Your task to perform on an android device: turn off notifications in google photos Image 0: 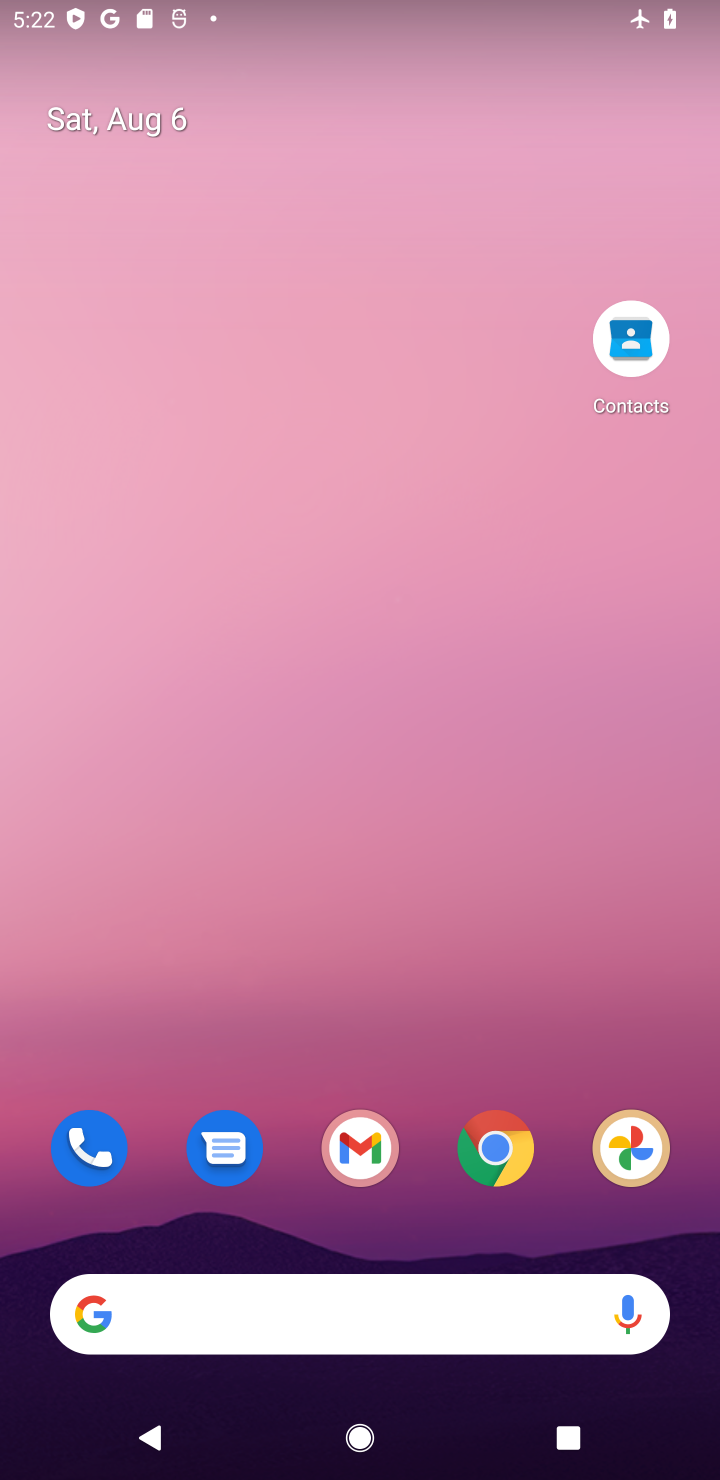
Step 0: drag from (382, 1266) to (503, 57)
Your task to perform on an android device: turn off notifications in google photos Image 1: 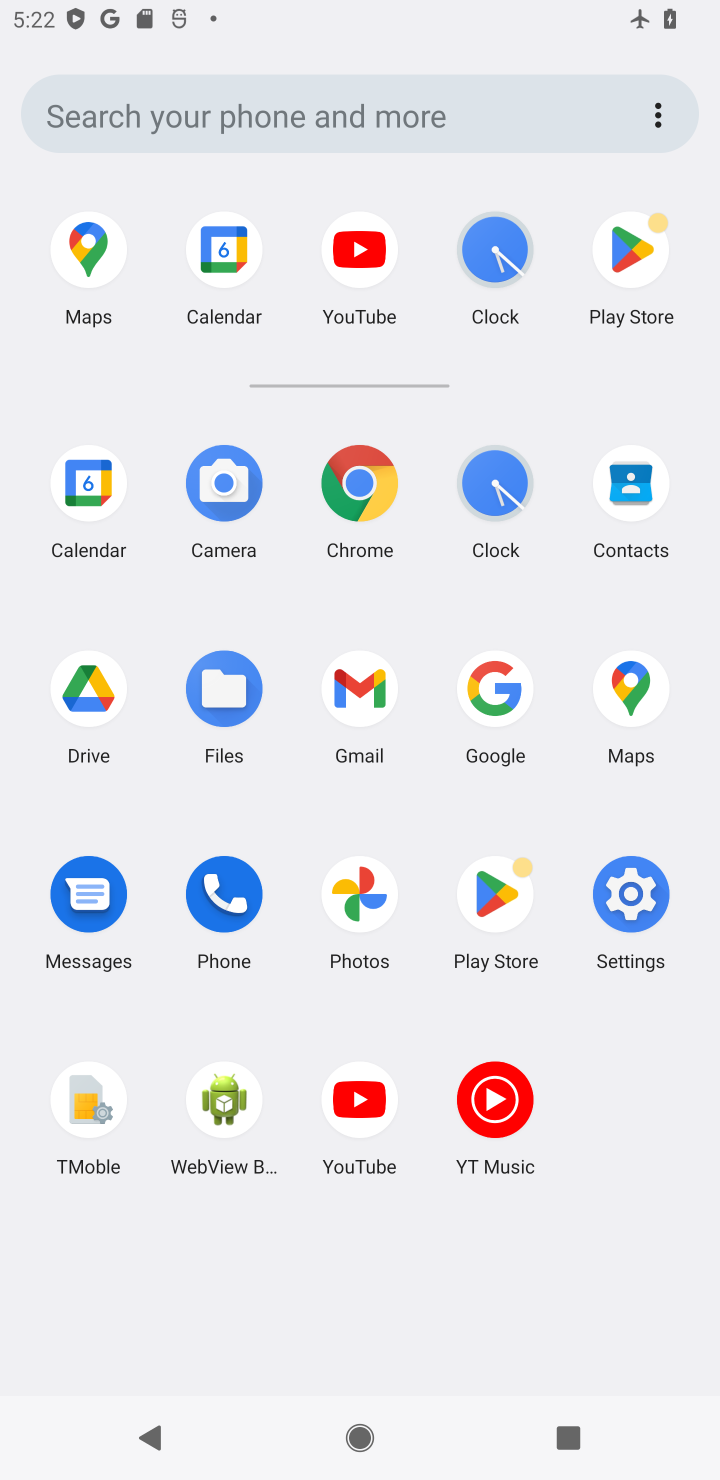
Step 1: click (360, 897)
Your task to perform on an android device: turn off notifications in google photos Image 2: 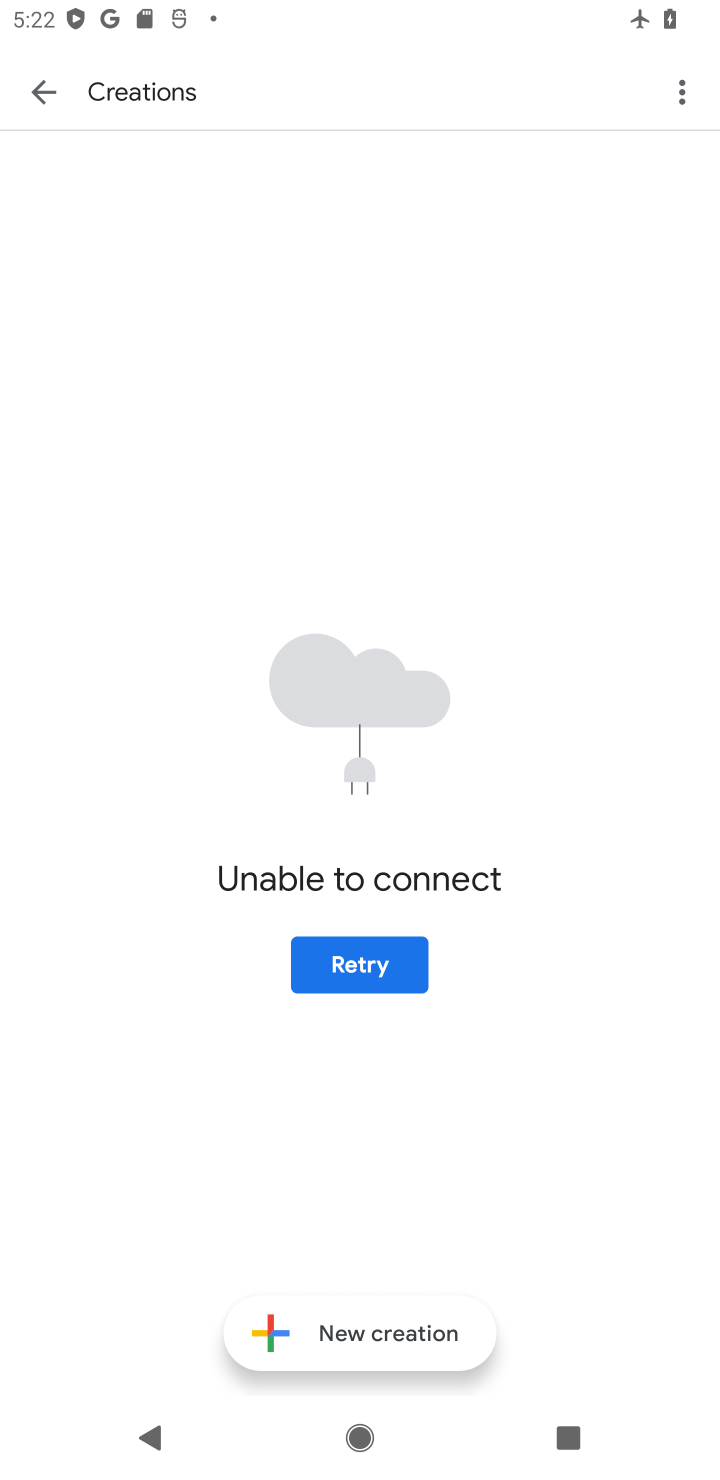
Step 2: click (42, 85)
Your task to perform on an android device: turn off notifications in google photos Image 3: 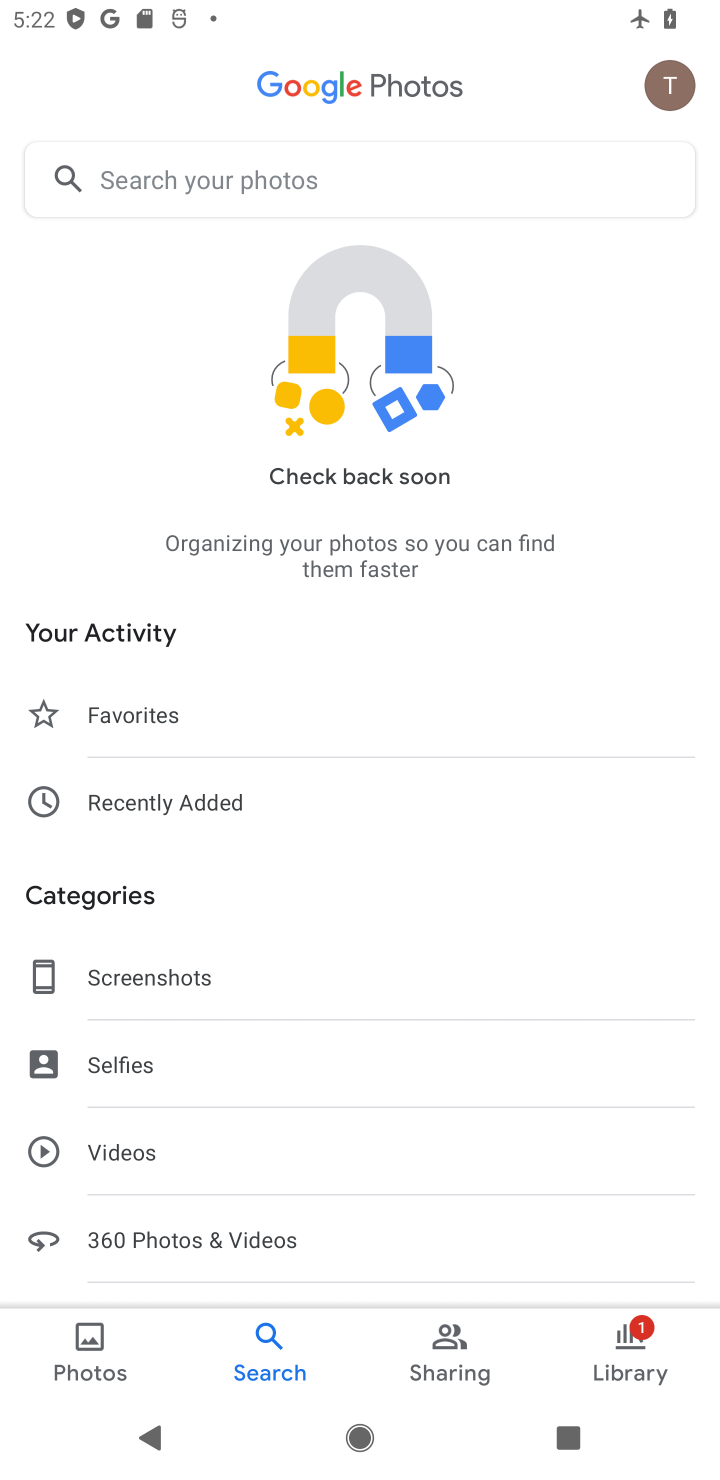
Step 3: click (53, 1341)
Your task to perform on an android device: turn off notifications in google photos Image 4: 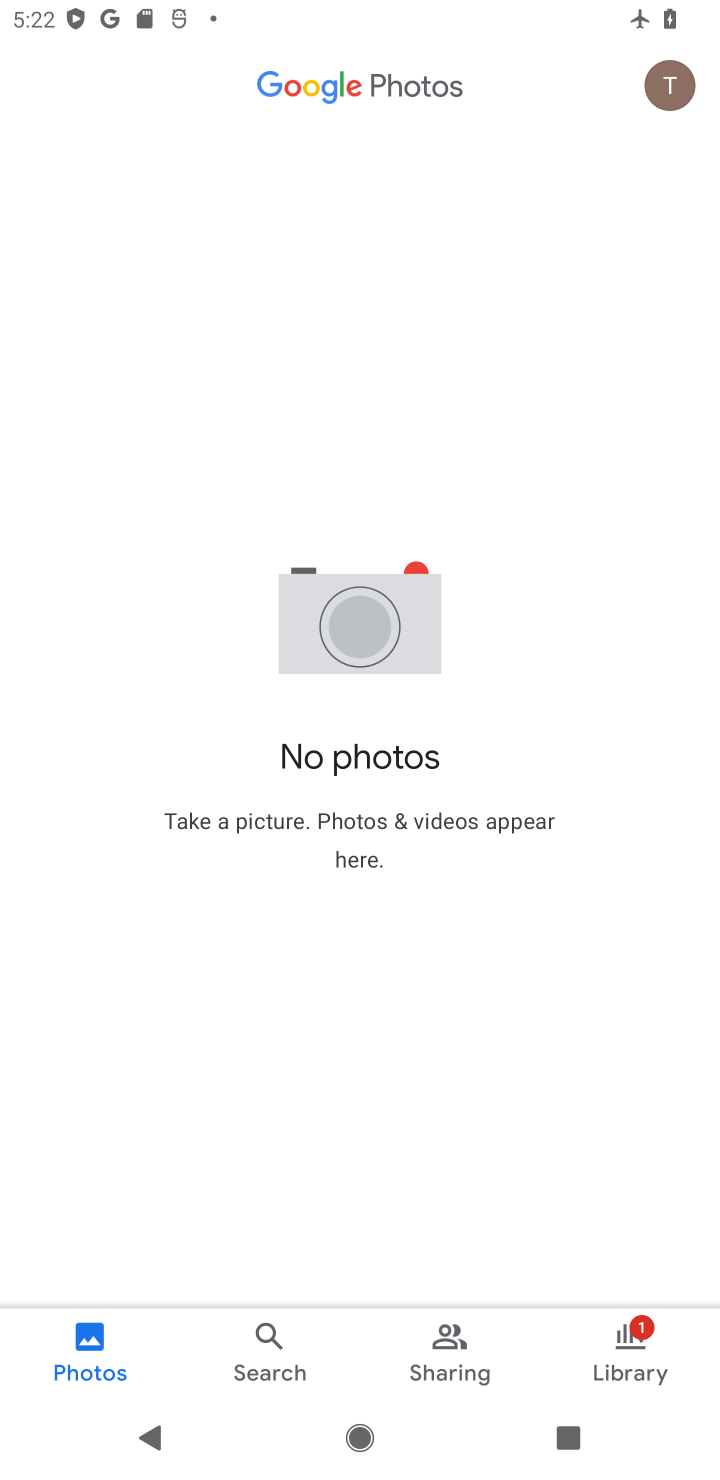
Step 4: click (651, 77)
Your task to perform on an android device: turn off notifications in google photos Image 5: 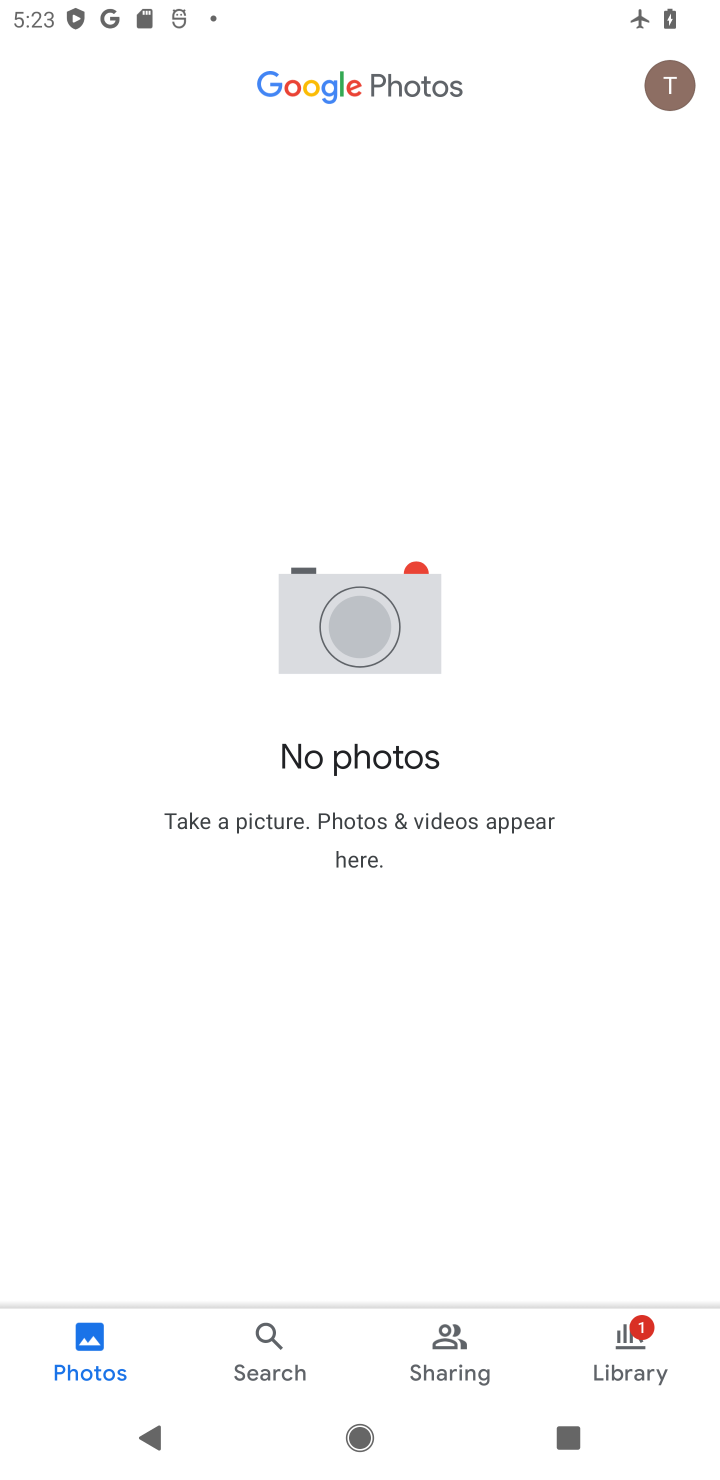
Step 5: click (662, 99)
Your task to perform on an android device: turn off notifications in google photos Image 6: 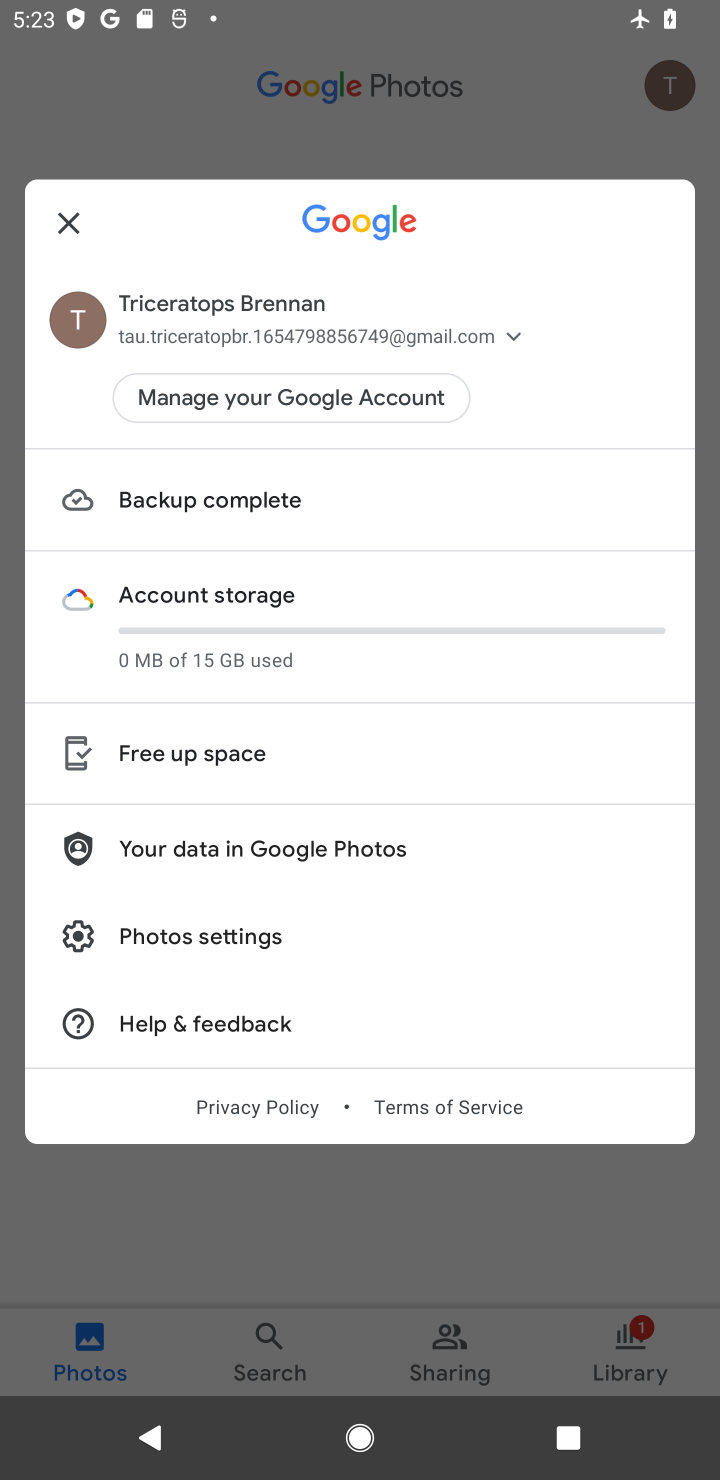
Step 6: click (202, 948)
Your task to perform on an android device: turn off notifications in google photos Image 7: 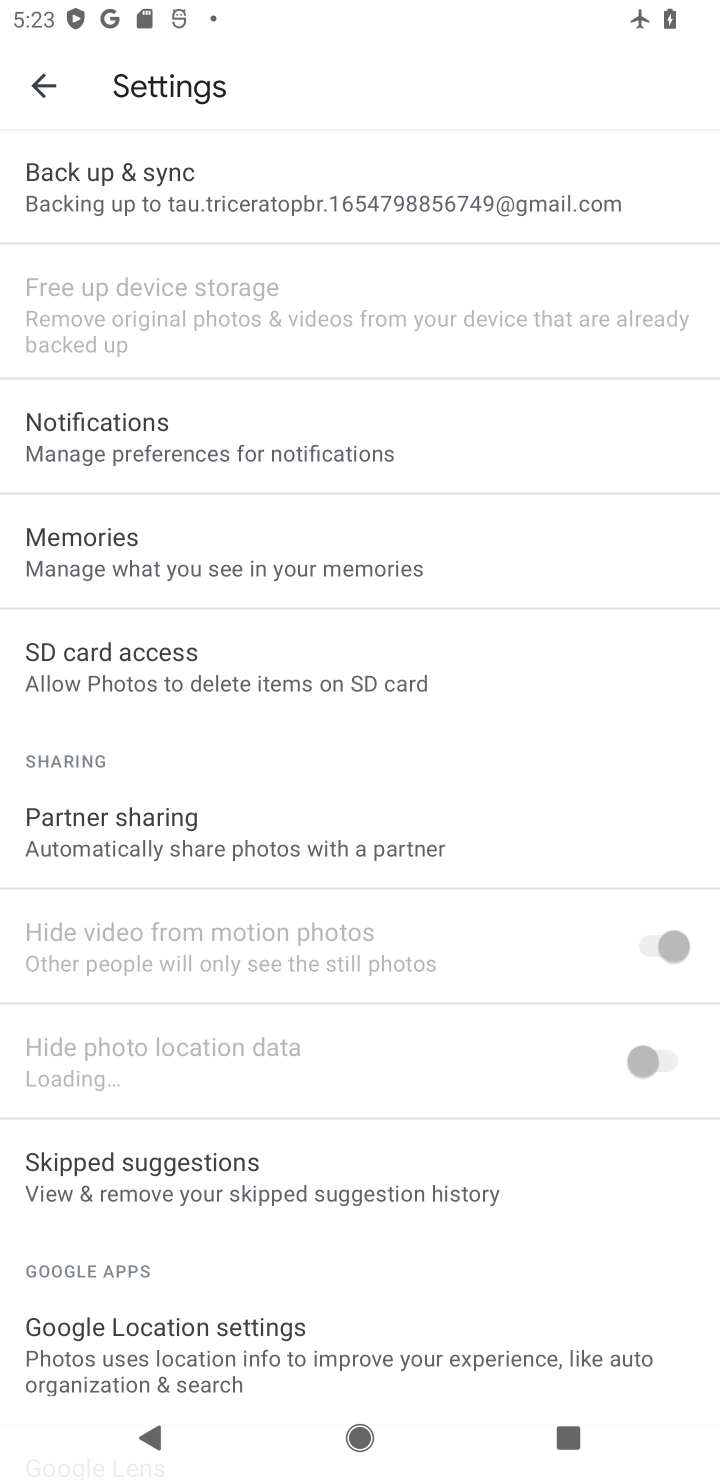
Step 7: click (210, 423)
Your task to perform on an android device: turn off notifications in google photos Image 8: 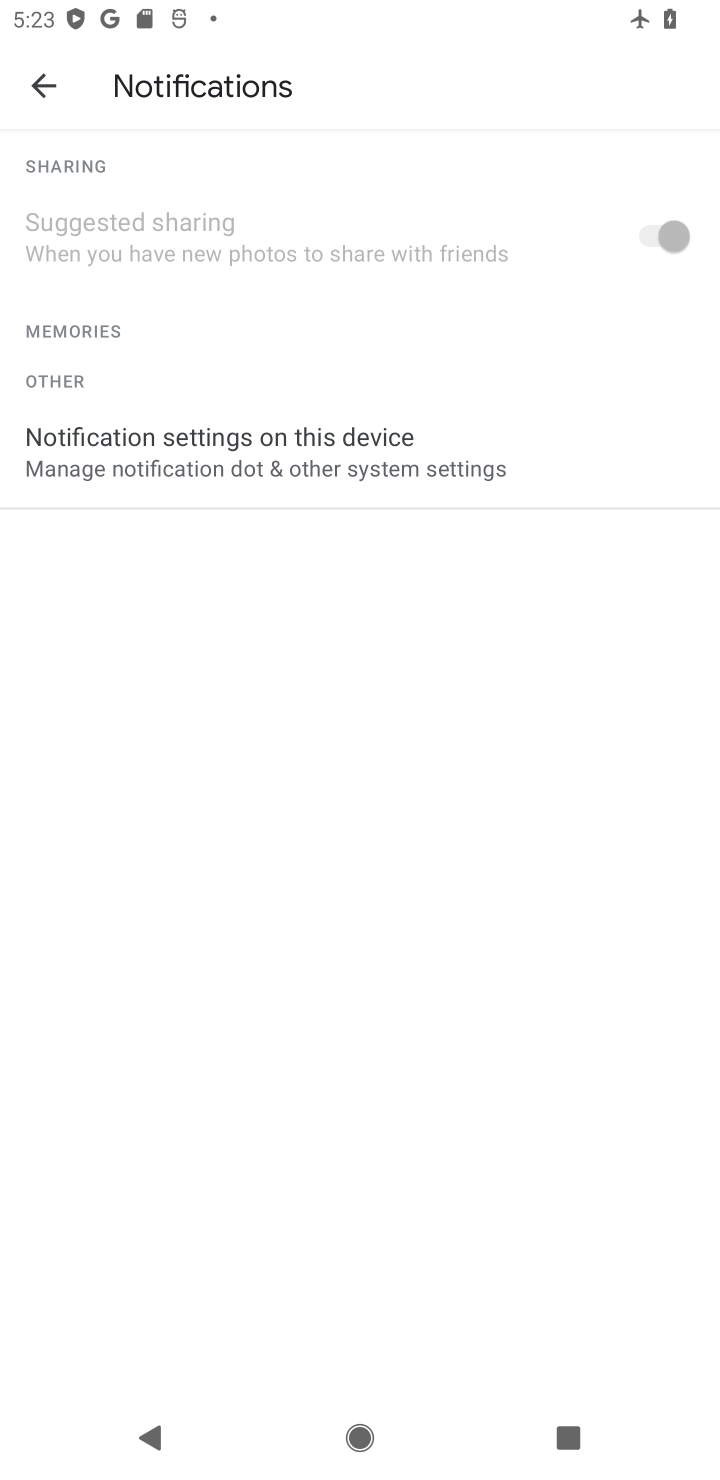
Step 8: click (265, 455)
Your task to perform on an android device: turn off notifications in google photos Image 9: 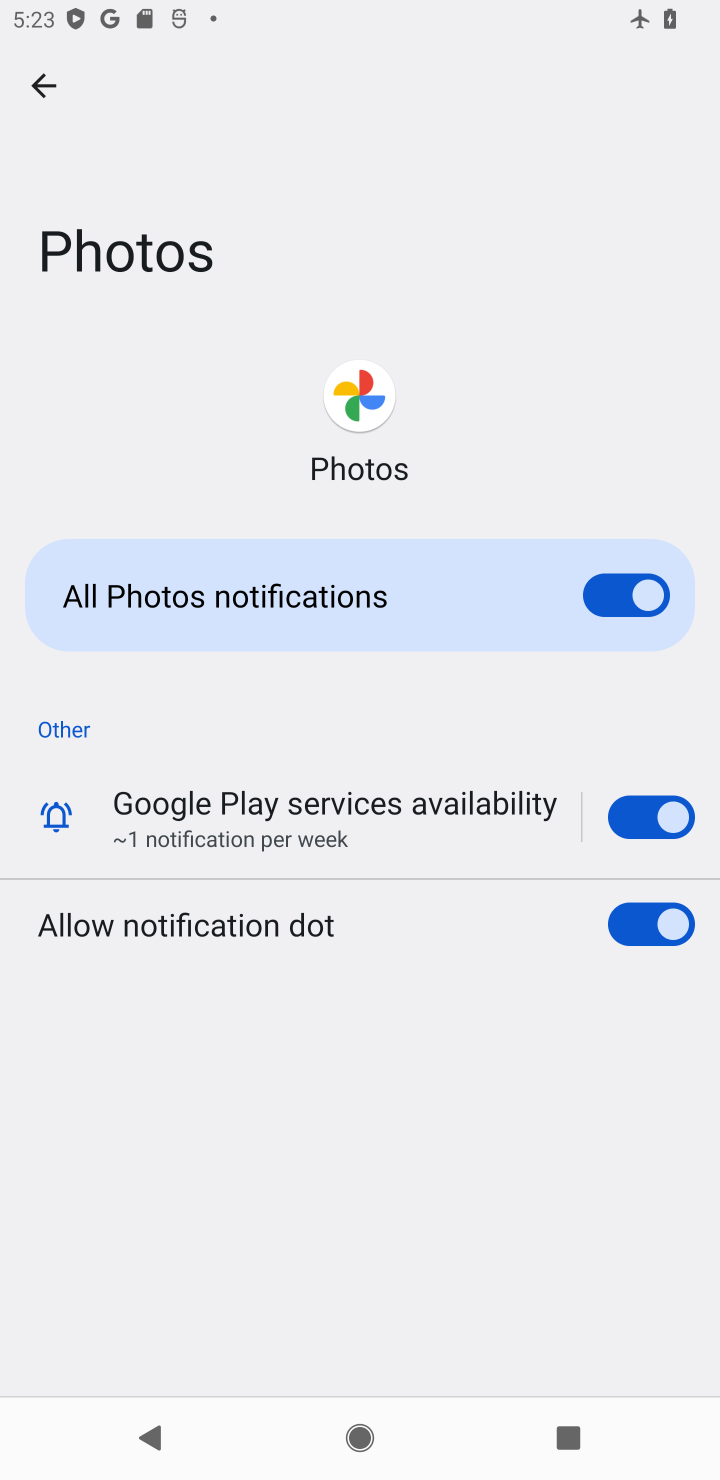
Step 9: click (628, 568)
Your task to perform on an android device: turn off notifications in google photos Image 10: 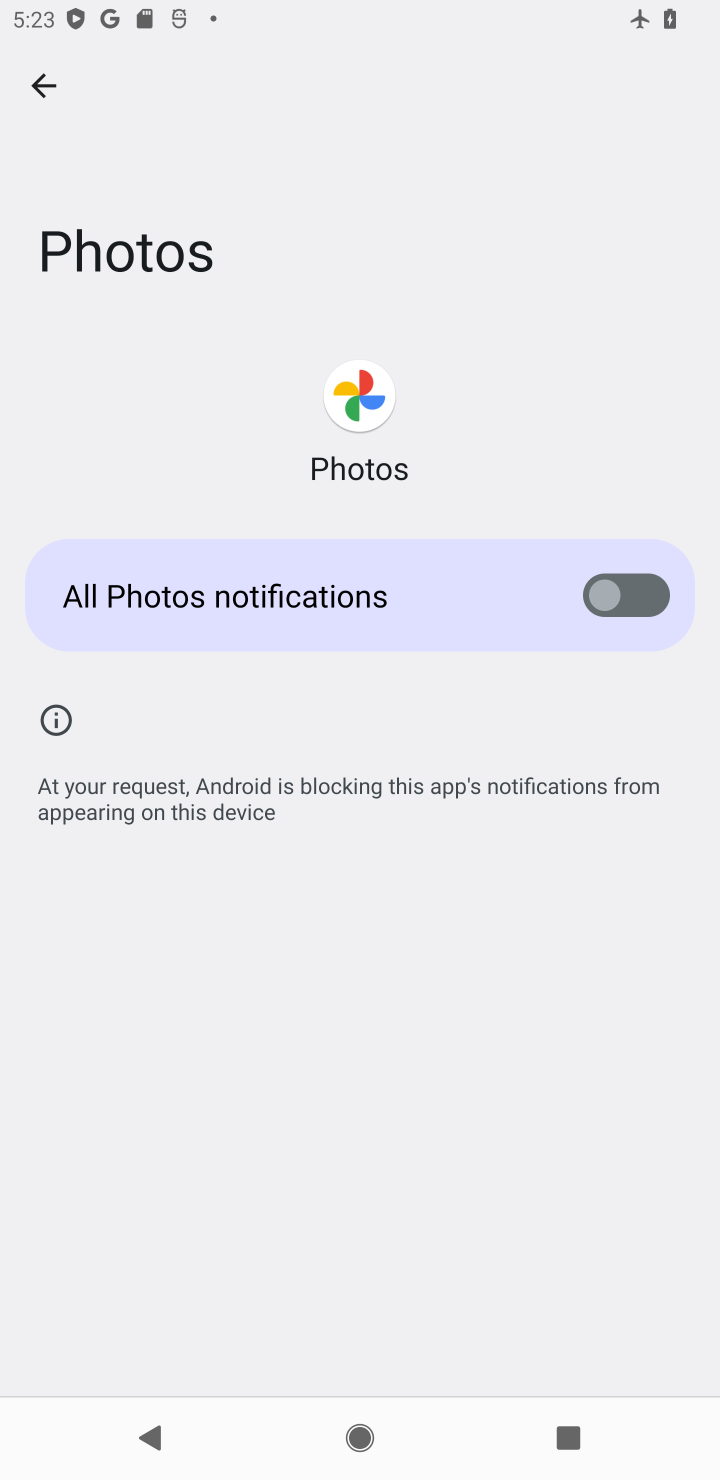
Step 10: task complete